Your task to perform on an android device: Show me popular games on the Play Store Image 0: 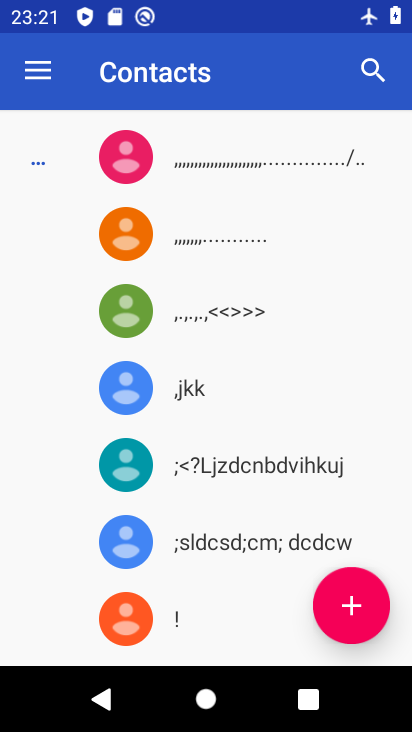
Step 0: press home button
Your task to perform on an android device: Show me popular games on the Play Store Image 1: 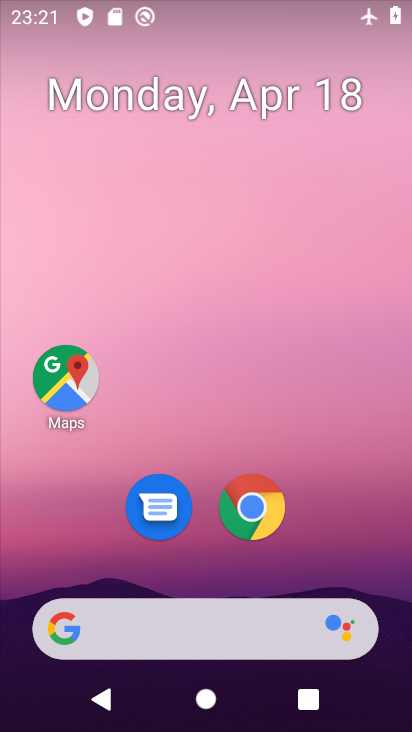
Step 1: drag from (338, 487) to (375, 79)
Your task to perform on an android device: Show me popular games on the Play Store Image 2: 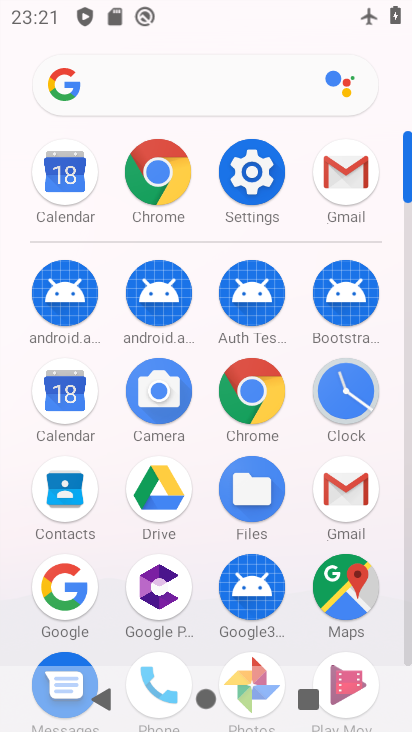
Step 2: drag from (210, 457) to (243, 231)
Your task to perform on an android device: Show me popular games on the Play Store Image 3: 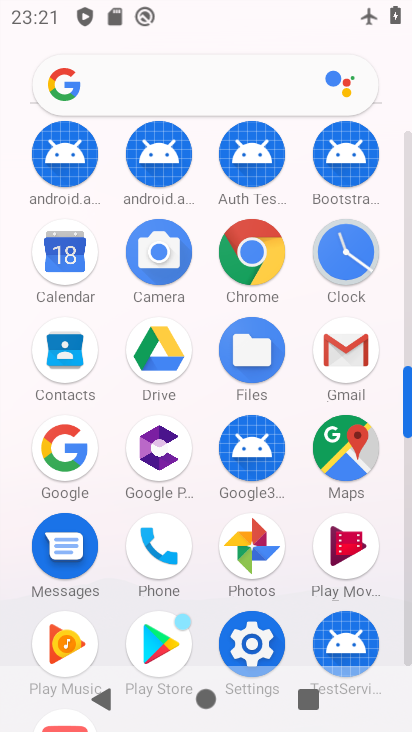
Step 3: click (156, 631)
Your task to perform on an android device: Show me popular games on the Play Store Image 4: 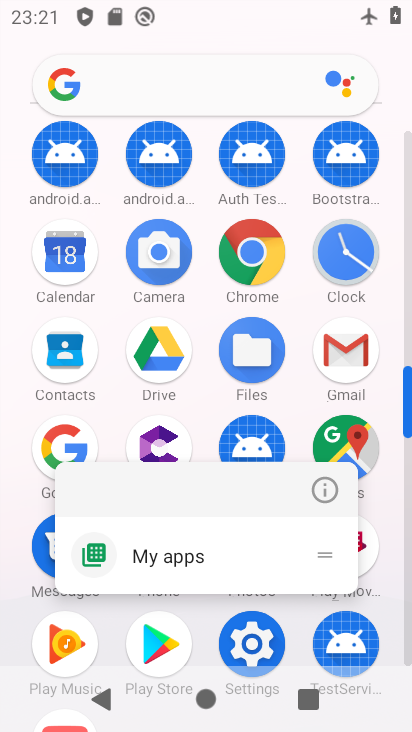
Step 4: click (156, 631)
Your task to perform on an android device: Show me popular games on the Play Store Image 5: 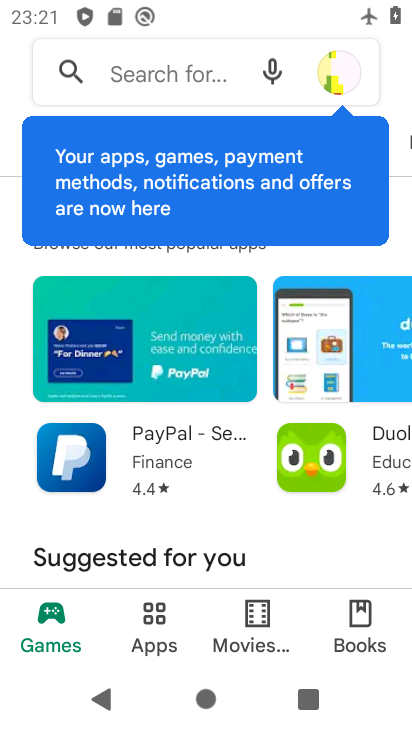
Step 5: click (208, 64)
Your task to perform on an android device: Show me popular games on the Play Store Image 6: 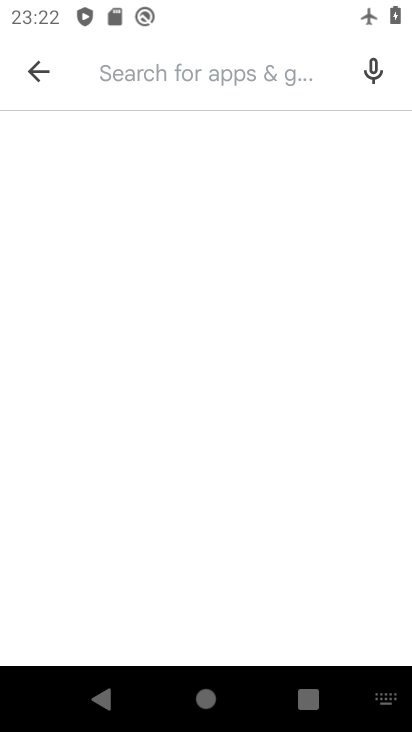
Step 6: type "popular games"
Your task to perform on an android device: Show me popular games on the Play Store Image 7: 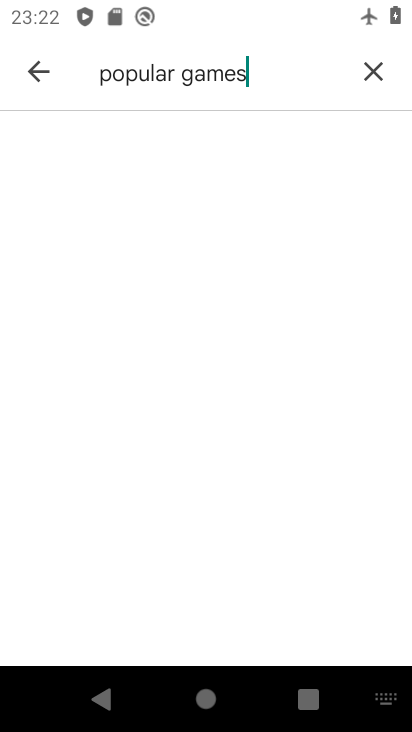
Step 7: task complete